Your task to perform on an android device: turn on bluetooth scan Image 0: 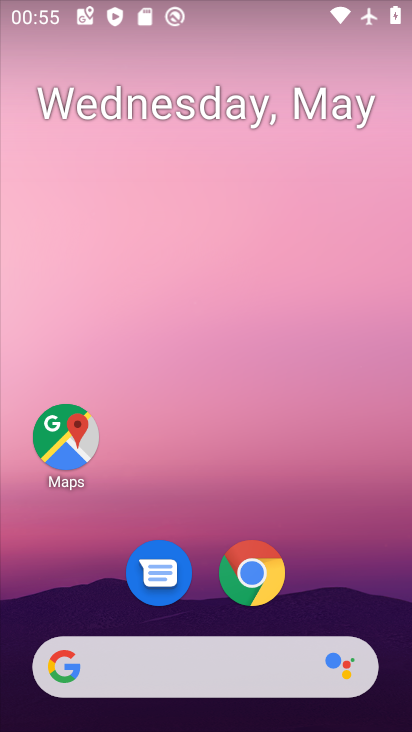
Step 0: drag from (311, 561) to (278, 214)
Your task to perform on an android device: turn on bluetooth scan Image 1: 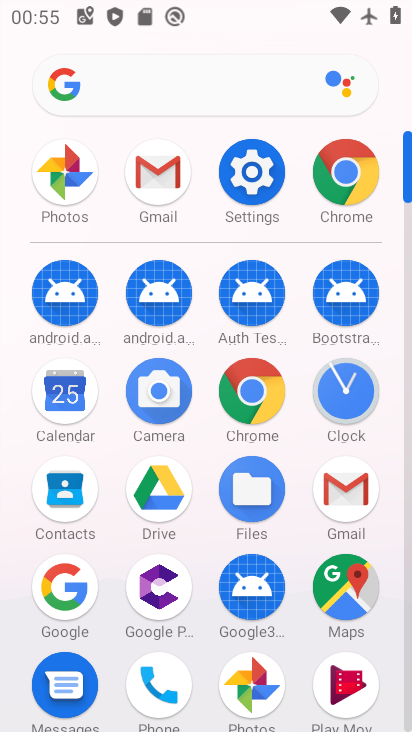
Step 1: click (250, 163)
Your task to perform on an android device: turn on bluetooth scan Image 2: 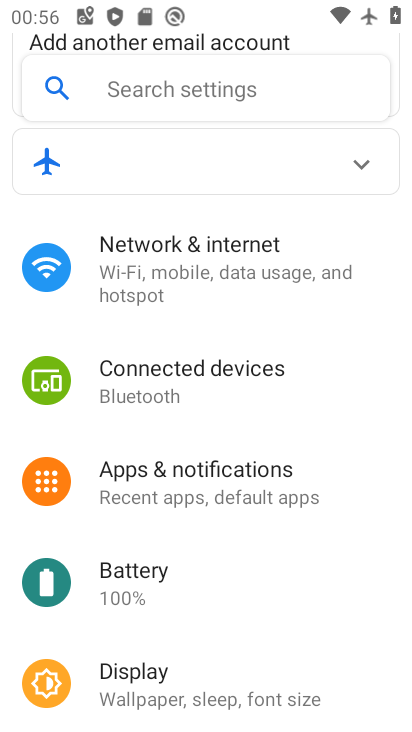
Step 2: click (259, 76)
Your task to perform on an android device: turn on bluetooth scan Image 3: 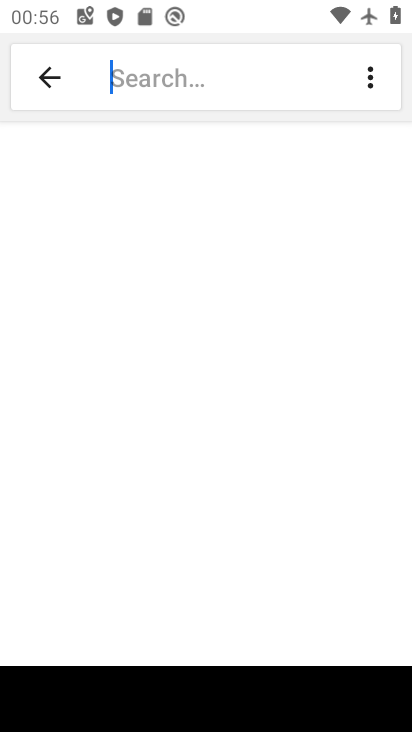
Step 3: type "bluetooth scan"
Your task to perform on an android device: turn on bluetooth scan Image 4: 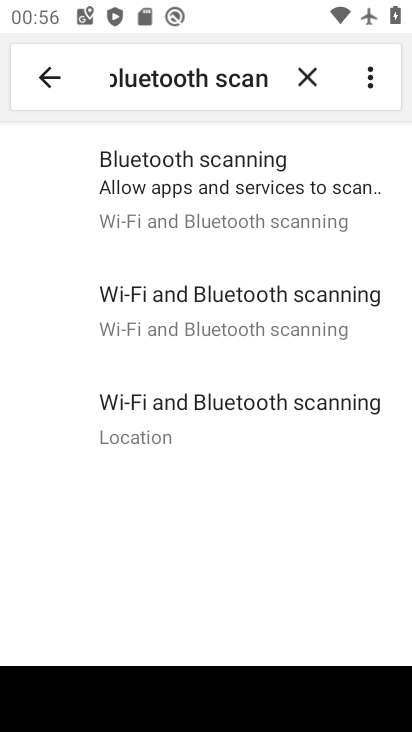
Step 4: click (253, 192)
Your task to perform on an android device: turn on bluetooth scan Image 5: 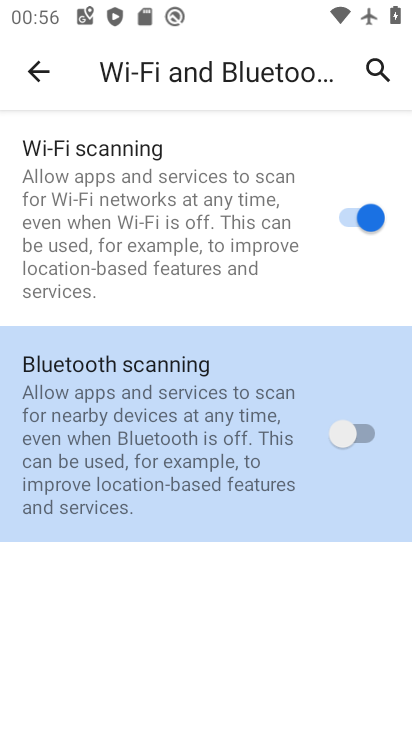
Step 5: click (357, 427)
Your task to perform on an android device: turn on bluetooth scan Image 6: 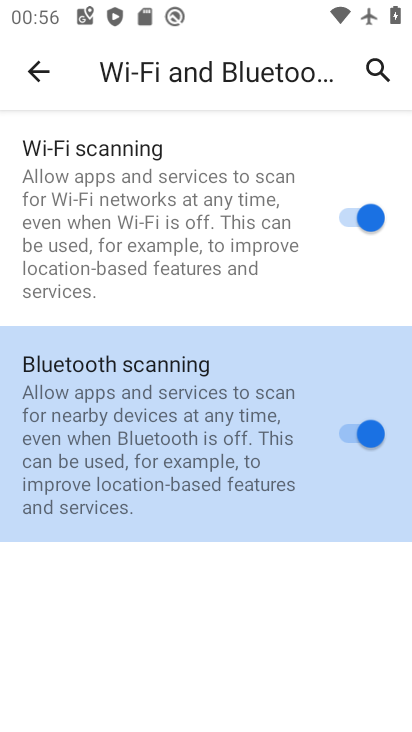
Step 6: task complete